Your task to perform on an android device: open a new tab in the chrome app Image 0: 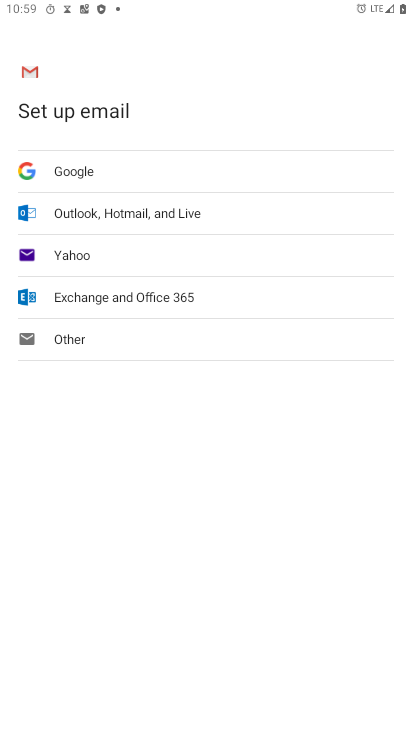
Step 0: press back button
Your task to perform on an android device: open a new tab in the chrome app Image 1: 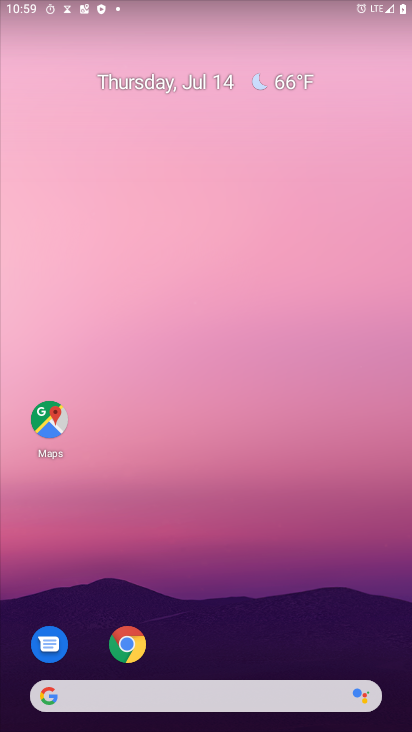
Step 1: drag from (223, 564) to (204, 405)
Your task to perform on an android device: open a new tab in the chrome app Image 2: 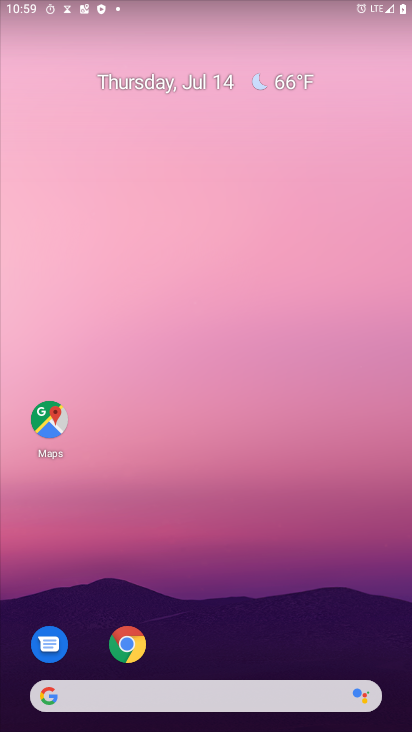
Step 2: drag from (238, 559) to (209, 249)
Your task to perform on an android device: open a new tab in the chrome app Image 3: 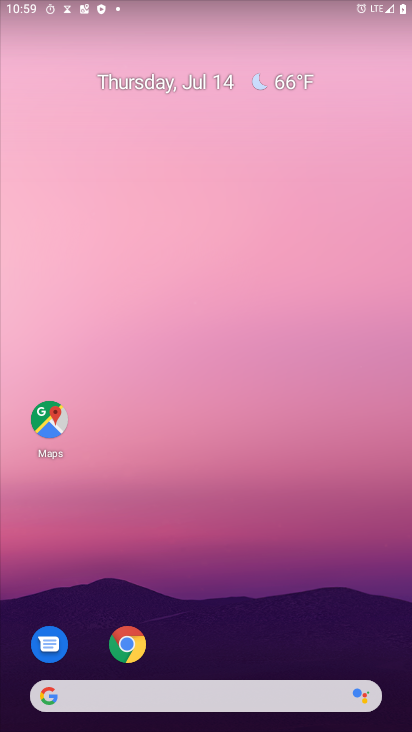
Step 3: drag from (201, 551) to (162, 238)
Your task to perform on an android device: open a new tab in the chrome app Image 4: 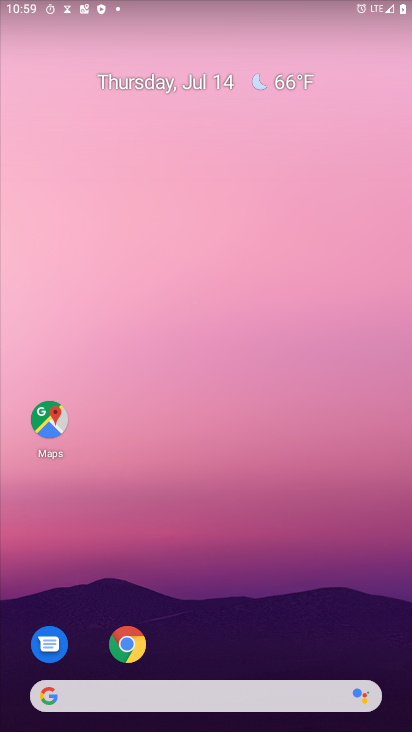
Step 4: drag from (187, 223) to (173, 127)
Your task to perform on an android device: open a new tab in the chrome app Image 5: 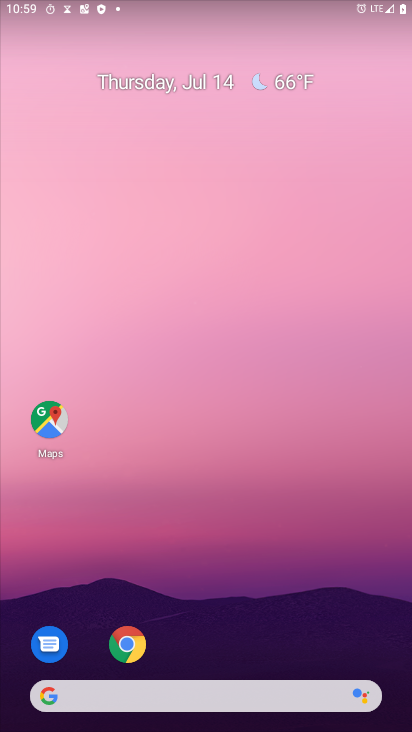
Step 5: drag from (225, 582) to (179, 139)
Your task to perform on an android device: open a new tab in the chrome app Image 6: 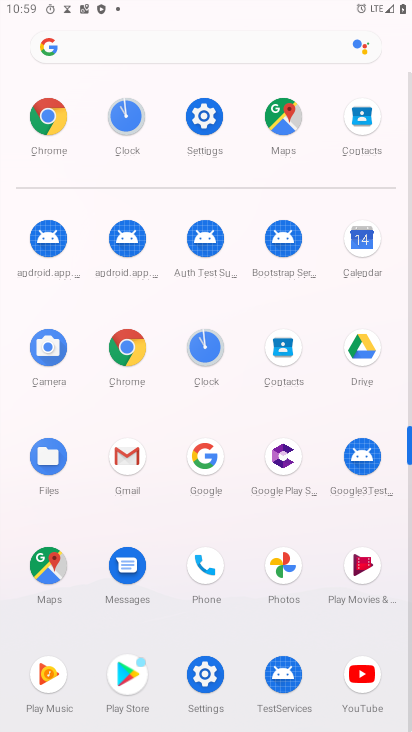
Step 6: click (43, 125)
Your task to perform on an android device: open a new tab in the chrome app Image 7: 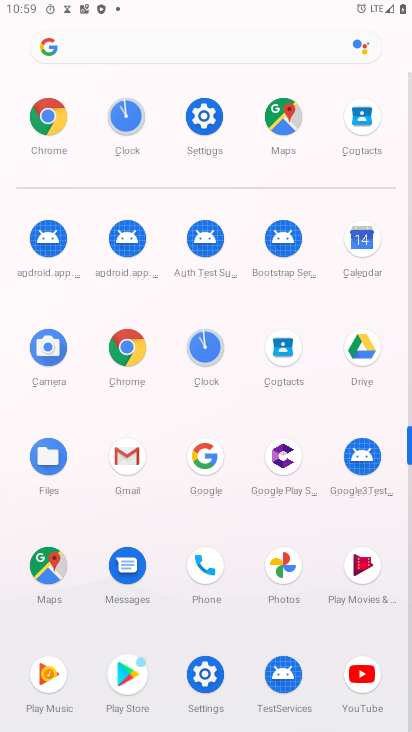
Step 7: click (41, 135)
Your task to perform on an android device: open a new tab in the chrome app Image 8: 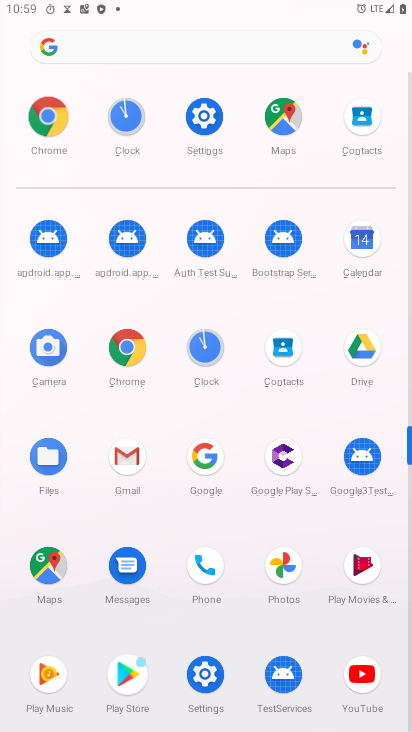
Step 8: click (41, 136)
Your task to perform on an android device: open a new tab in the chrome app Image 9: 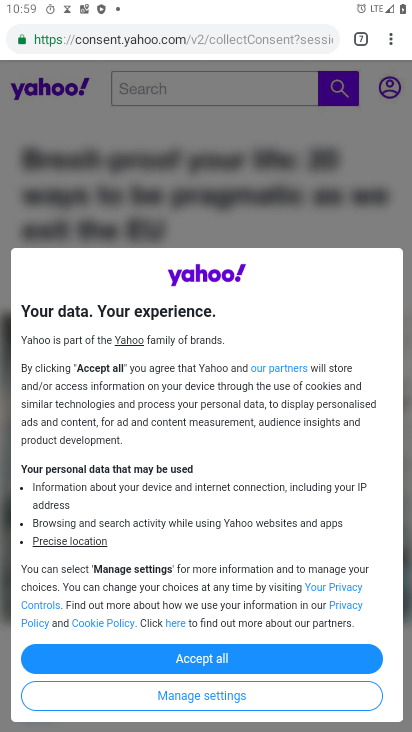
Step 9: drag from (389, 39) to (255, 78)
Your task to perform on an android device: open a new tab in the chrome app Image 10: 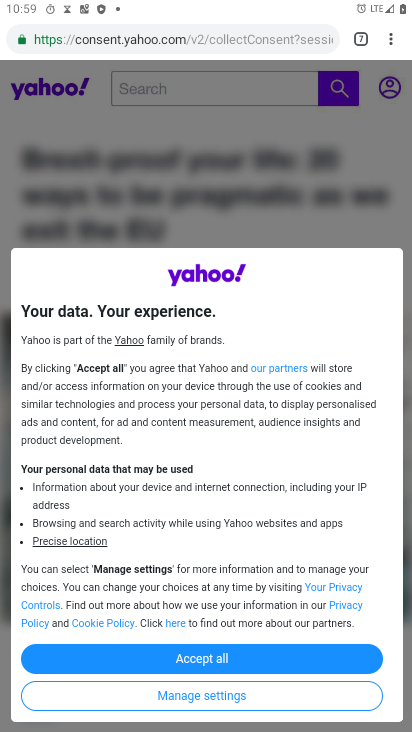
Step 10: click (255, 78)
Your task to perform on an android device: open a new tab in the chrome app Image 11: 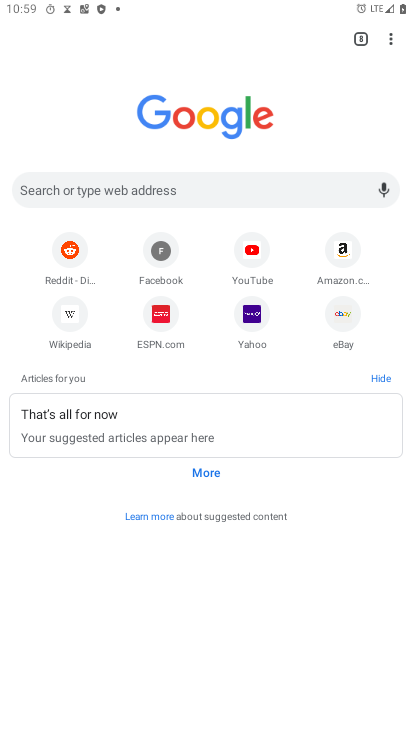
Step 11: task complete